Your task to perform on an android device: uninstall "Gboard" Image 0: 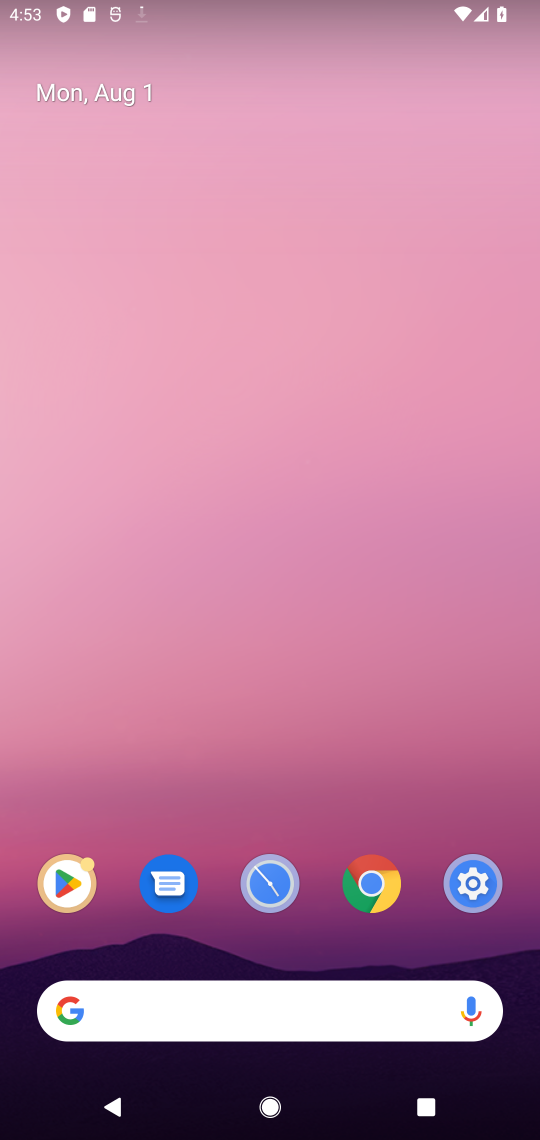
Step 0: drag from (123, 925) to (161, 307)
Your task to perform on an android device: uninstall "Gboard" Image 1: 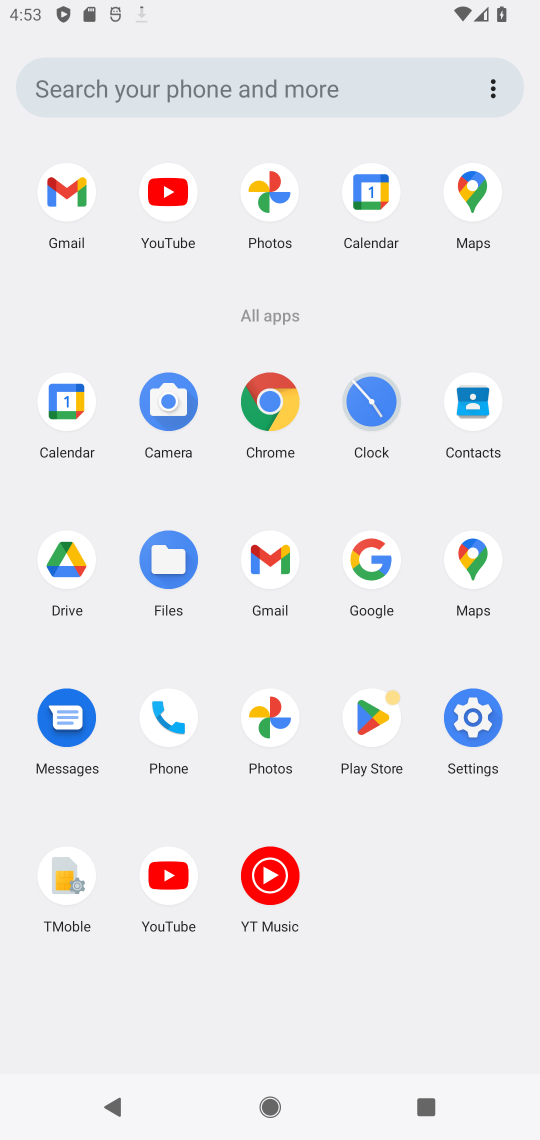
Step 1: click (377, 707)
Your task to perform on an android device: uninstall "Gboard" Image 2: 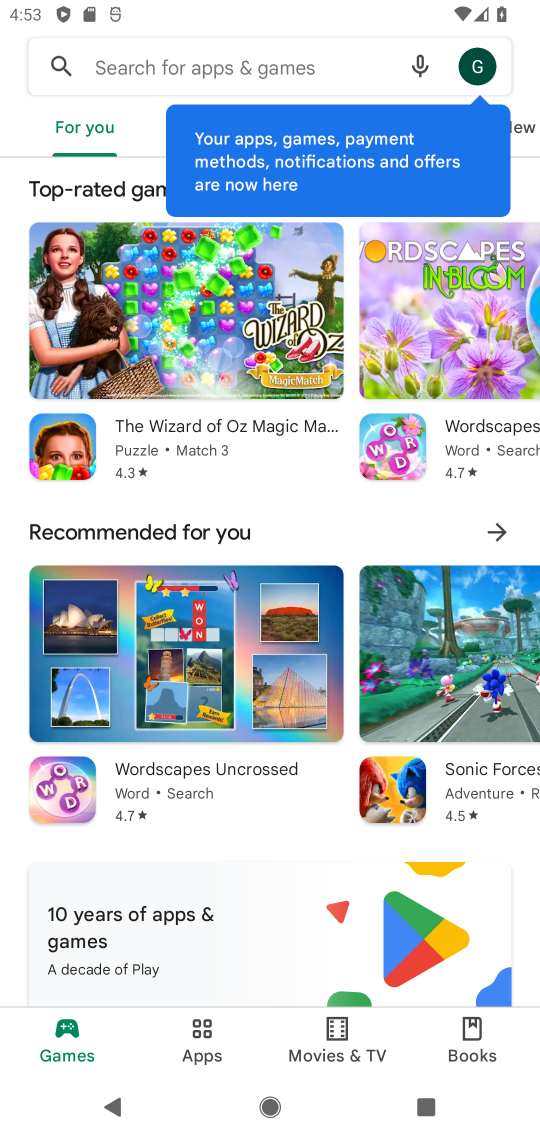
Step 2: click (155, 55)
Your task to perform on an android device: uninstall "Gboard" Image 3: 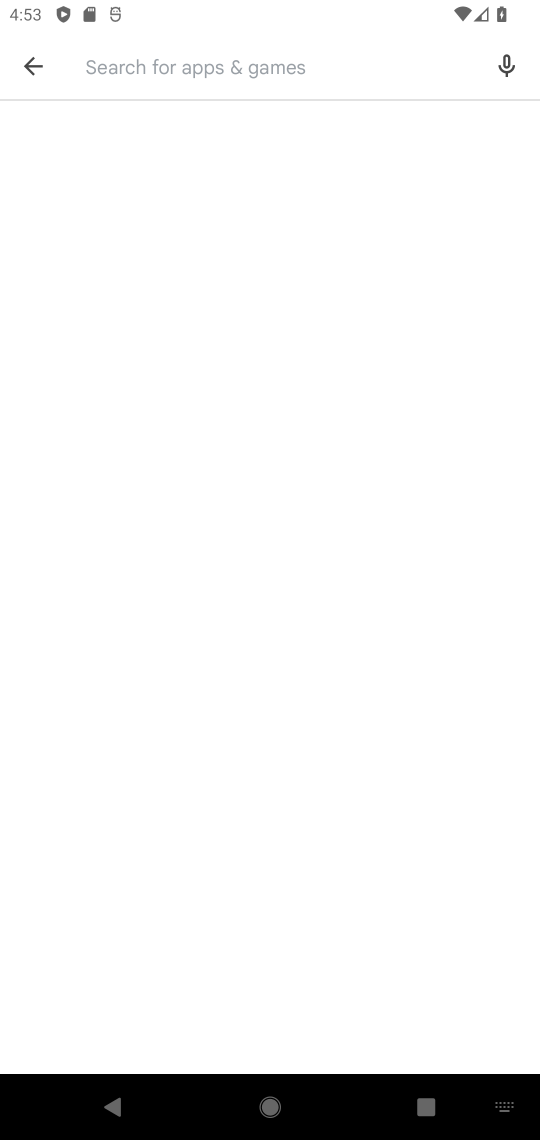
Step 3: type "Gboard"
Your task to perform on an android device: uninstall "Gboard" Image 4: 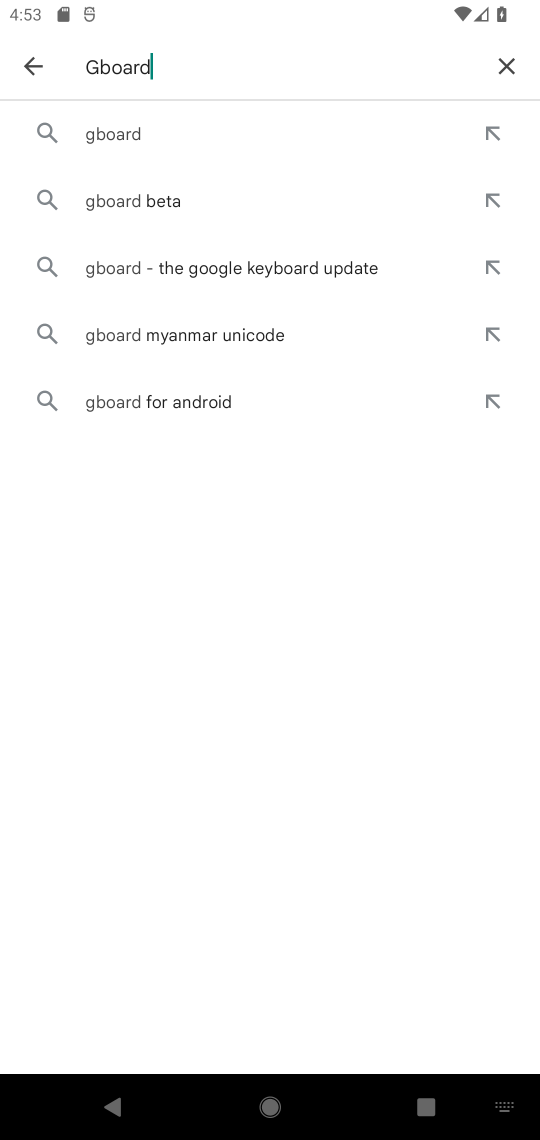
Step 4: click (78, 138)
Your task to perform on an android device: uninstall "Gboard" Image 5: 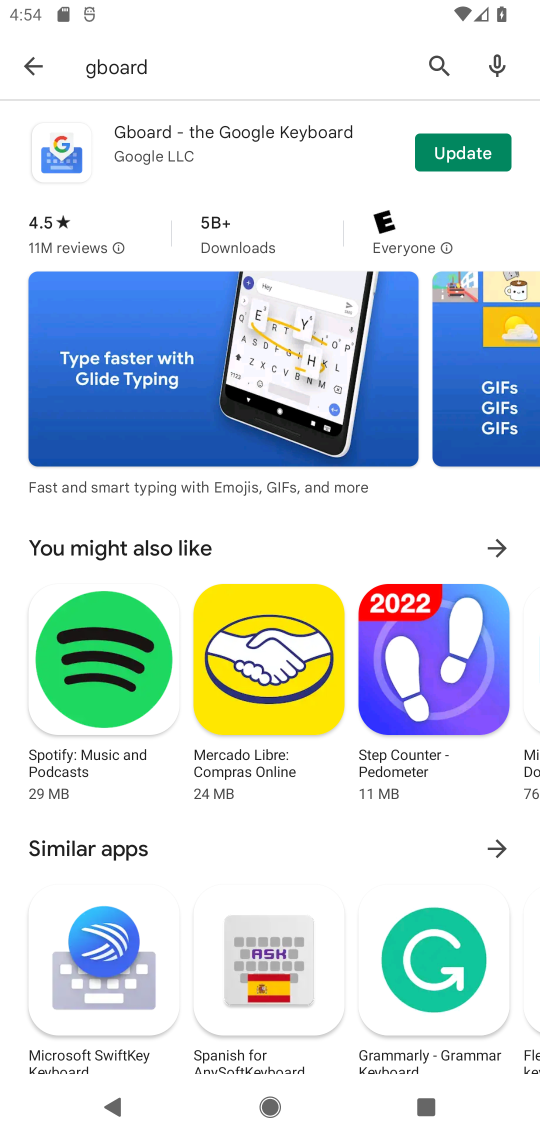
Step 5: task complete